Your task to perform on an android device: Search for Italian restaurants on Maps Image 0: 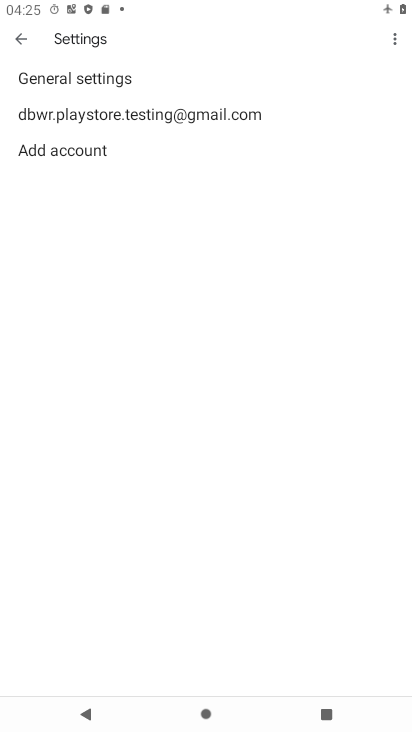
Step 0: press home button
Your task to perform on an android device: Search for Italian restaurants on Maps Image 1: 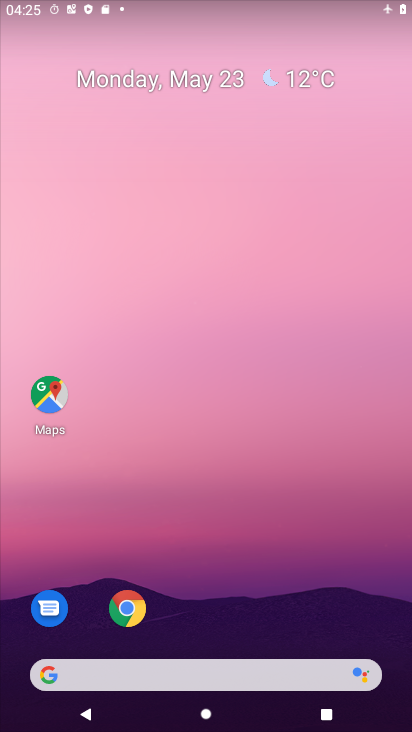
Step 1: click (42, 394)
Your task to perform on an android device: Search for Italian restaurants on Maps Image 2: 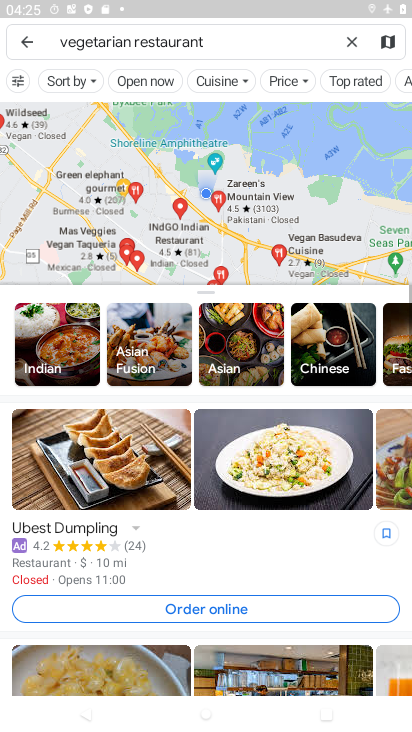
Step 2: click (344, 37)
Your task to perform on an android device: Search for Italian restaurants on Maps Image 3: 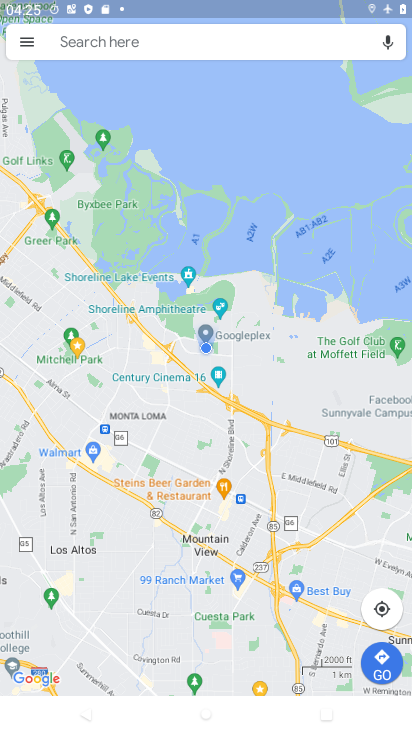
Step 3: click (205, 38)
Your task to perform on an android device: Search for Italian restaurants on Maps Image 4: 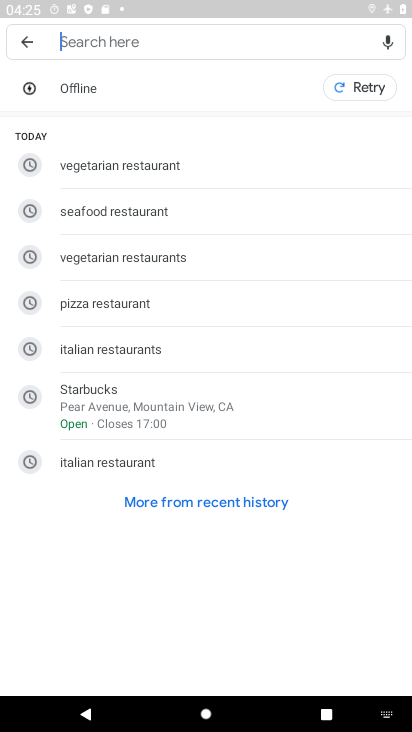
Step 4: click (146, 348)
Your task to perform on an android device: Search for Italian restaurants on Maps Image 5: 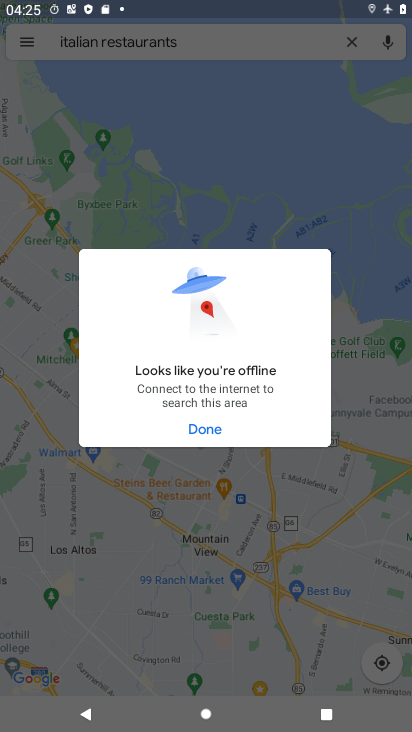
Step 5: click (199, 423)
Your task to perform on an android device: Search for Italian restaurants on Maps Image 6: 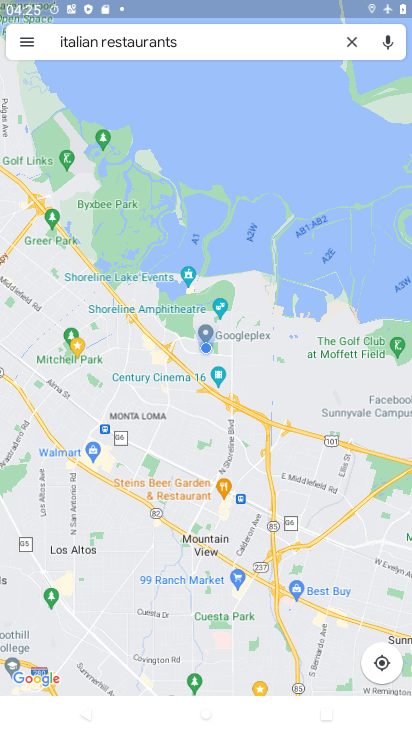
Step 6: task complete